Your task to perform on an android device: turn off notifications in google photos Image 0: 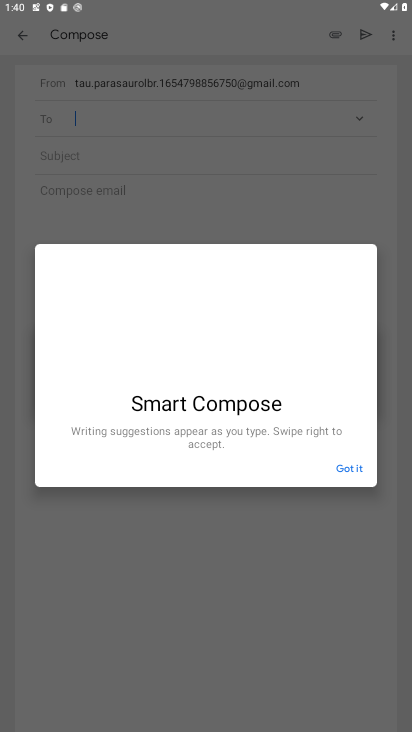
Step 0: press home button
Your task to perform on an android device: turn off notifications in google photos Image 1: 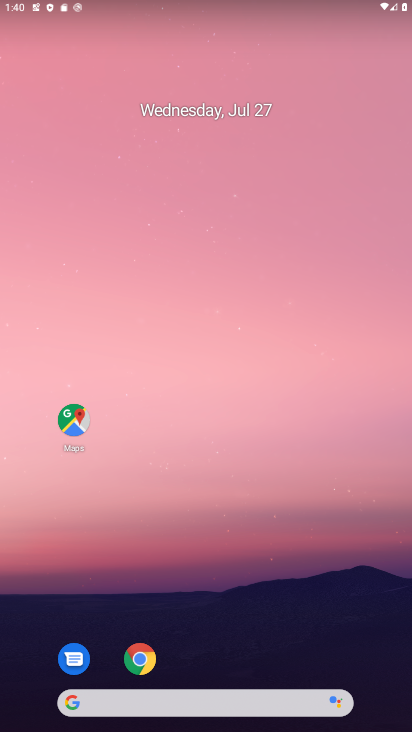
Step 1: drag from (274, 533) to (263, 54)
Your task to perform on an android device: turn off notifications in google photos Image 2: 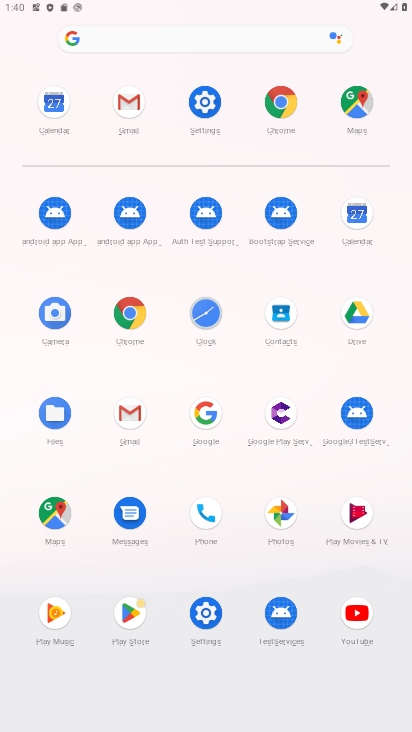
Step 2: click (284, 505)
Your task to perform on an android device: turn off notifications in google photos Image 3: 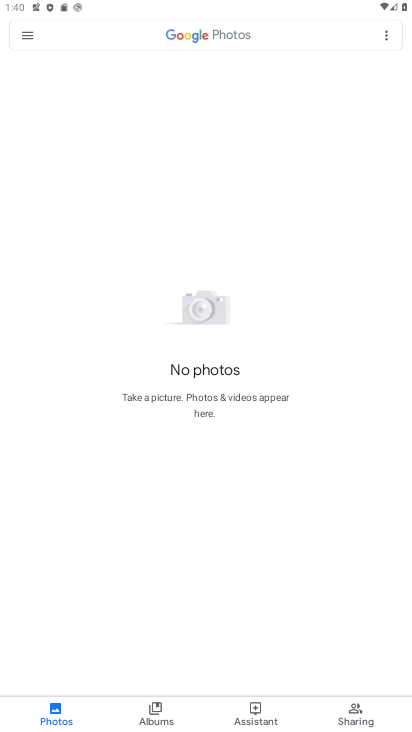
Step 3: click (26, 32)
Your task to perform on an android device: turn off notifications in google photos Image 4: 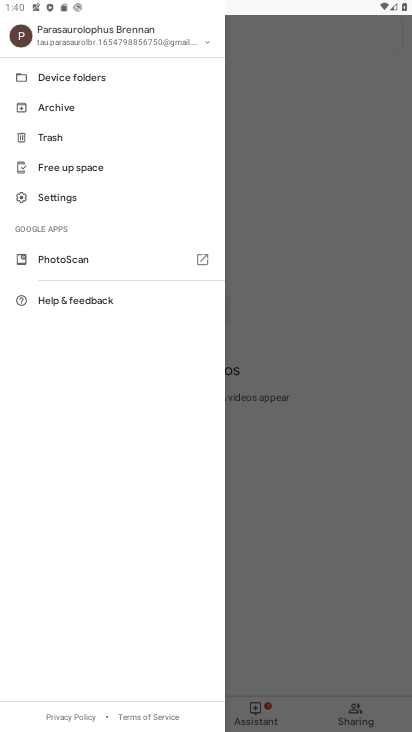
Step 4: click (73, 203)
Your task to perform on an android device: turn off notifications in google photos Image 5: 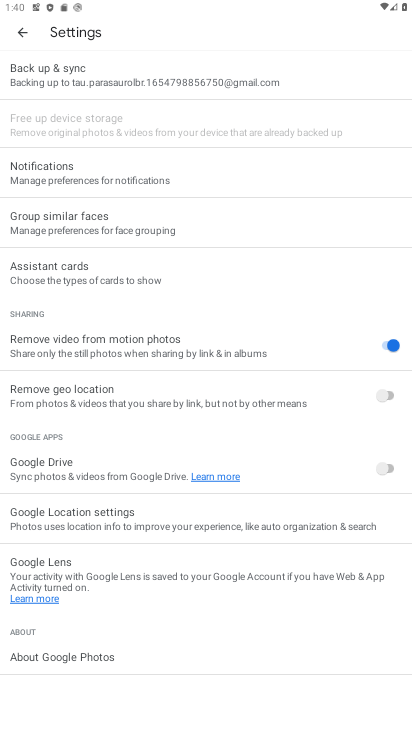
Step 5: click (77, 184)
Your task to perform on an android device: turn off notifications in google photos Image 6: 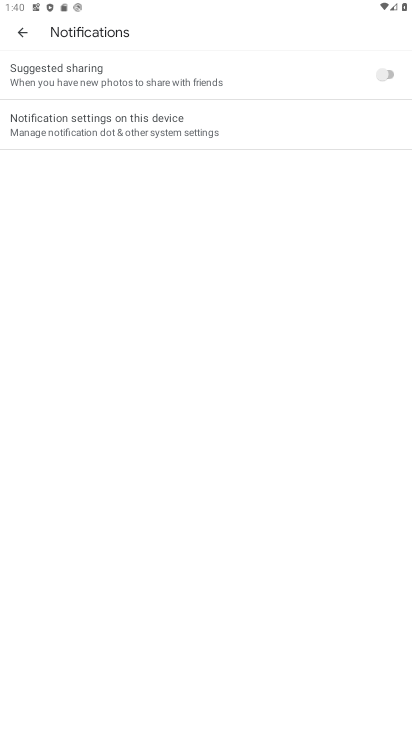
Step 6: click (158, 118)
Your task to perform on an android device: turn off notifications in google photos Image 7: 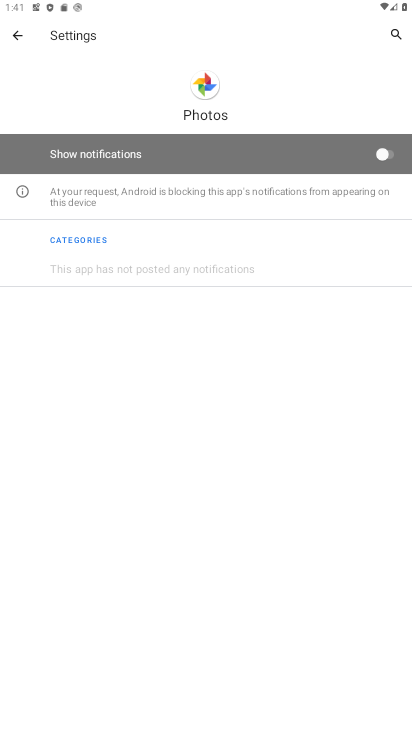
Step 7: task complete